Your task to perform on an android device: turn off location history Image 0: 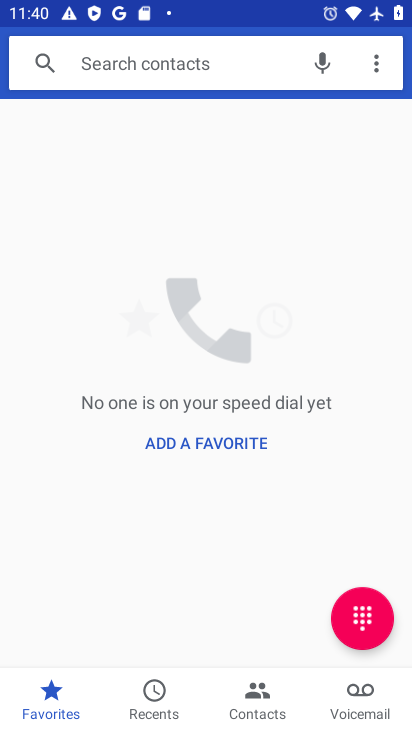
Step 0: press back button
Your task to perform on an android device: turn off location history Image 1: 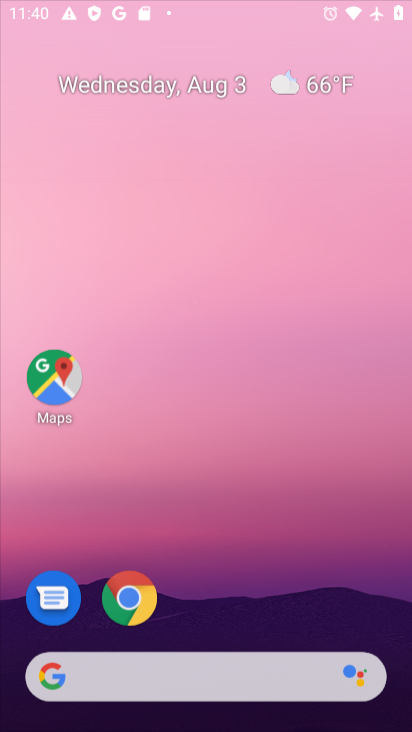
Step 1: press home button
Your task to perform on an android device: turn off location history Image 2: 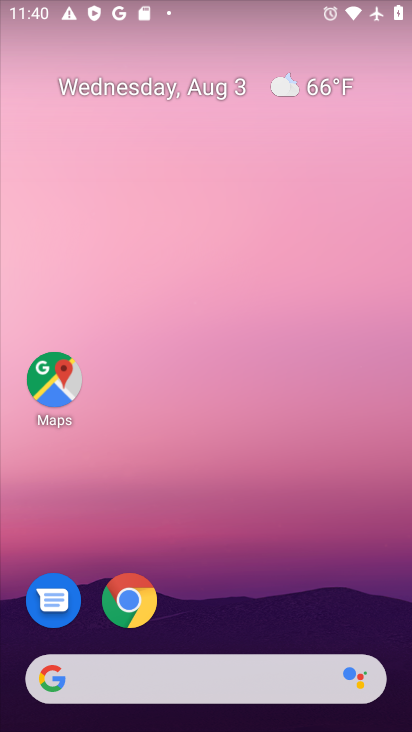
Step 2: drag from (217, 643) to (238, 58)
Your task to perform on an android device: turn off location history Image 3: 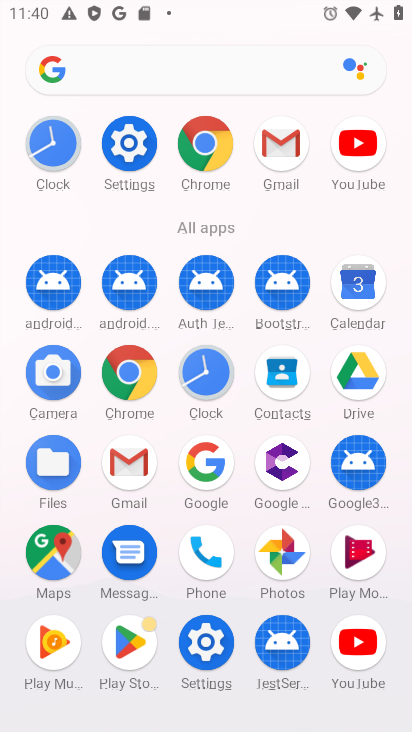
Step 3: click (151, 151)
Your task to perform on an android device: turn off location history Image 4: 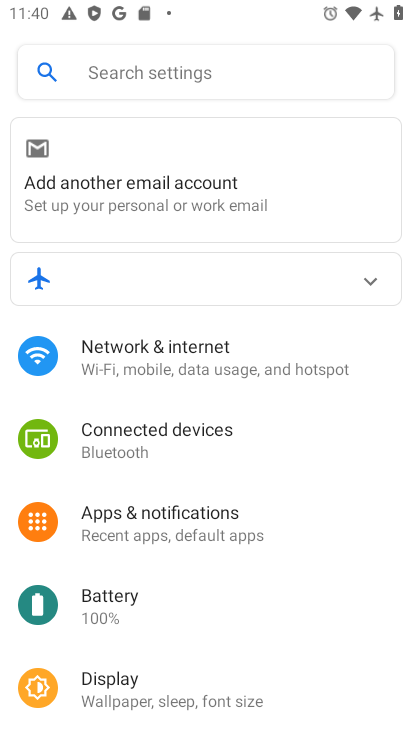
Step 4: drag from (198, 599) to (172, 242)
Your task to perform on an android device: turn off location history Image 5: 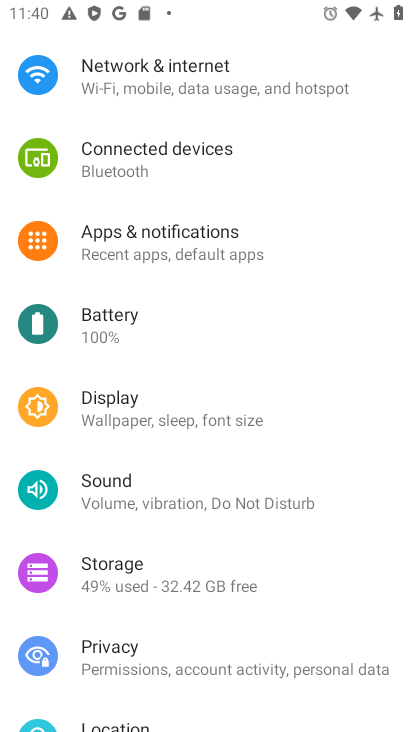
Step 5: click (99, 714)
Your task to perform on an android device: turn off location history Image 6: 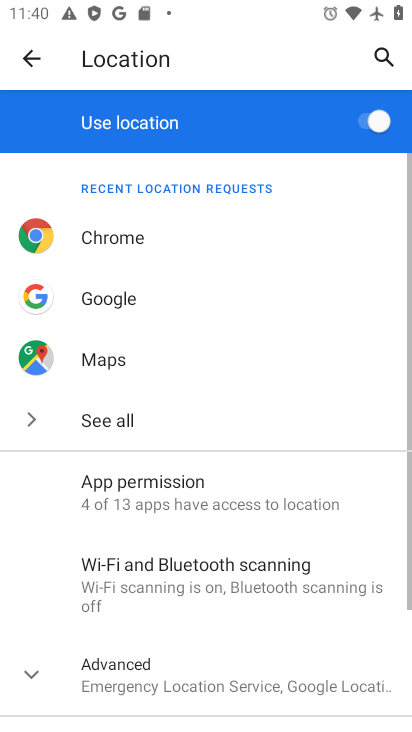
Step 6: click (102, 690)
Your task to perform on an android device: turn off location history Image 7: 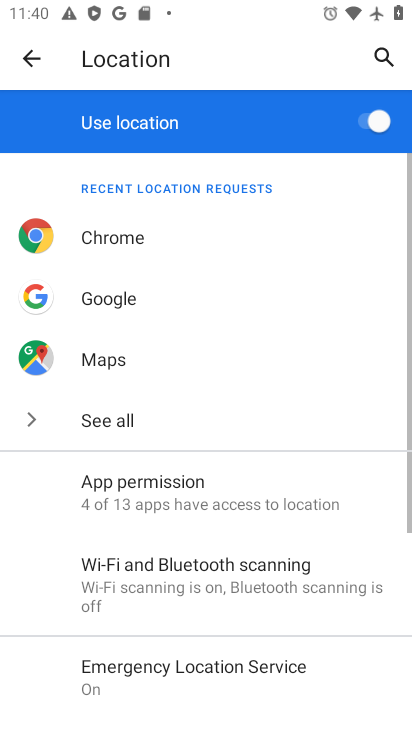
Step 7: drag from (102, 690) to (84, 284)
Your task to perform on an android device: turn off location history Image 8: 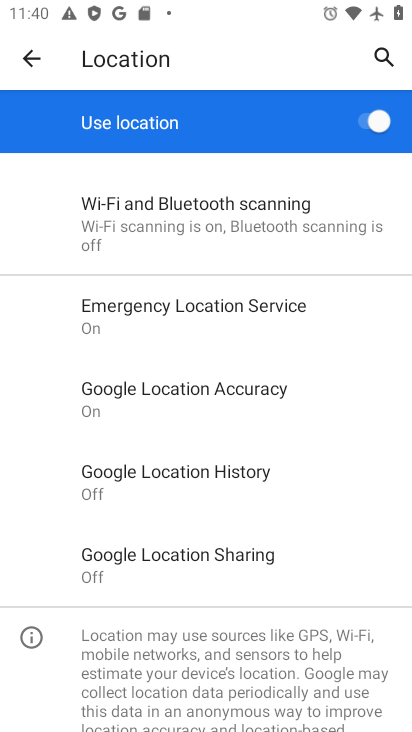
Step 8: click (222, 477)
Your task to perform on an android device: turn off location history Image 9: 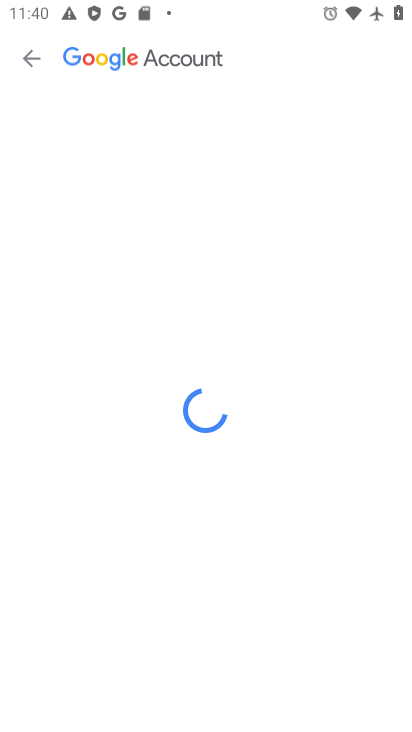
Step 9: task complete